Your task to perform on an android device: toggle notification dots Image 0: 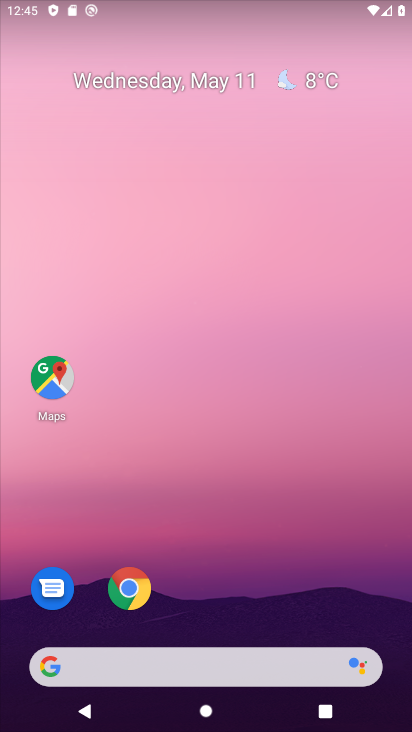
Step 0: click (287, 155)
Your task to perform on an android device: toggle notification dots Image 1: 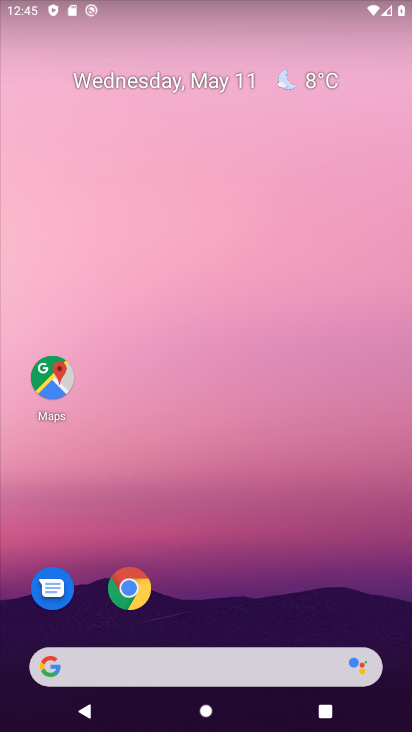
Step 1: drag from (282, 569) to (293, 226)
Your task to perform on an android device: toggle notification dots Image 2: 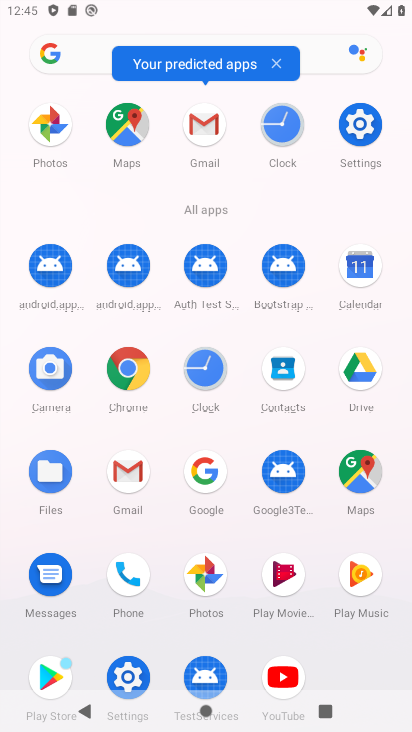
Step 2: click (379, 126)
Your task to perform on an android device: toggle notification dots Image 3: 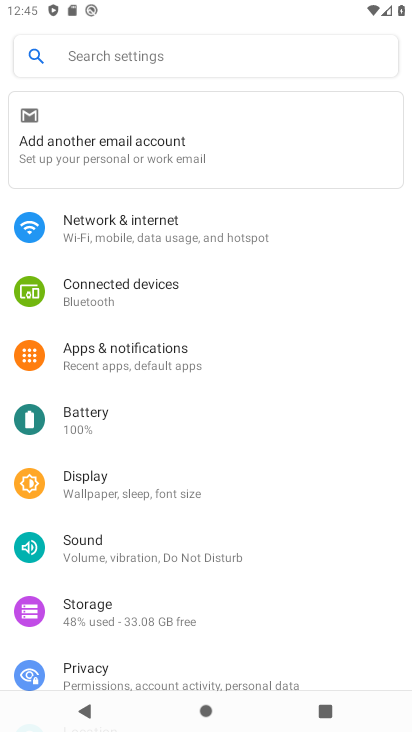
Step 3: click (235, 366)
Your task to perform on an android device: toggle notification dots Image 4: 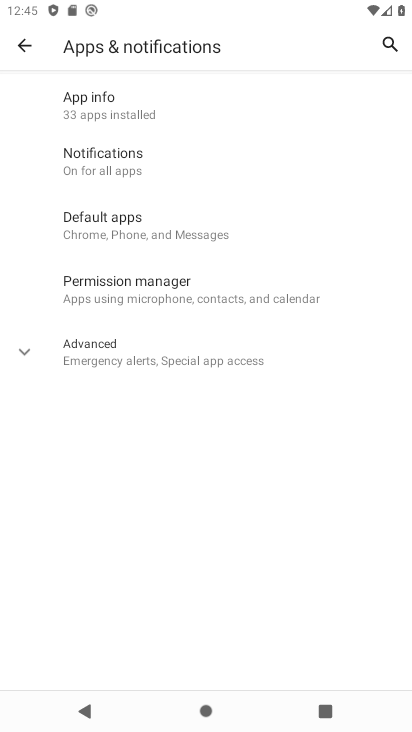
Step 4: click (147, 163)
Your task to perform on an android device: toggle notification dots Image 5: 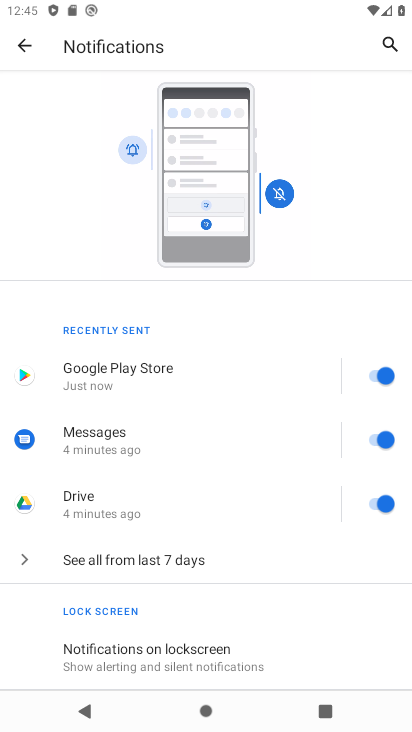
Step 5: drag from (191, 619) to (171, 294)
Your task to perform on an android device: toggle notification dots Image 6: 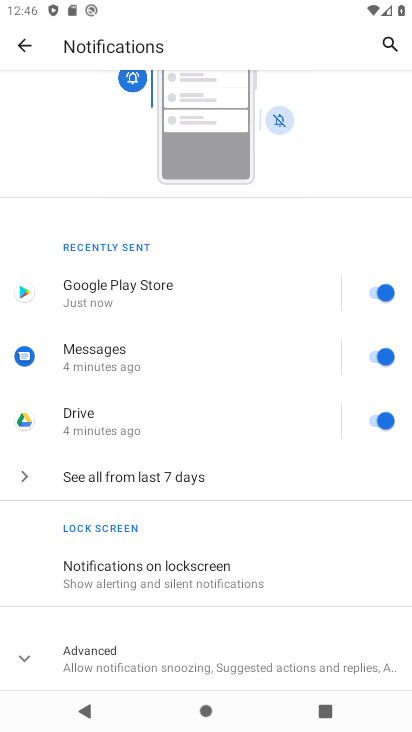
Step 6: click (30, 662)
Your task to perform on an android device: toggle notification dots Image 7: 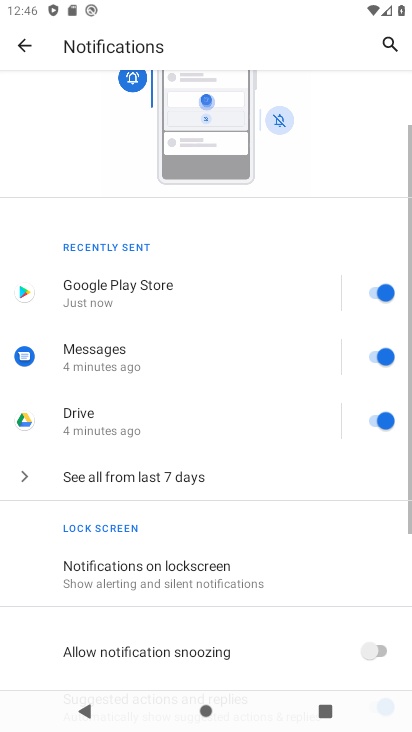
Step 7: drag from (232, 635) to (236, 240)
Your task to perform on an android device: toggle notification dots Image 8: 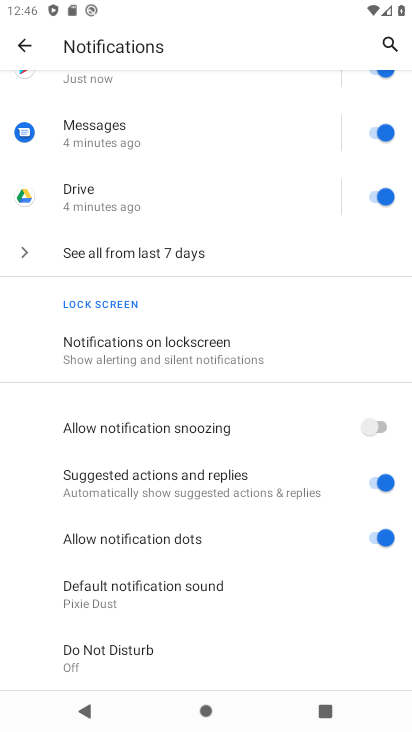
Step 8: click (388, 537)
Your task to perform on an android device: toggle notification dots Image 9: 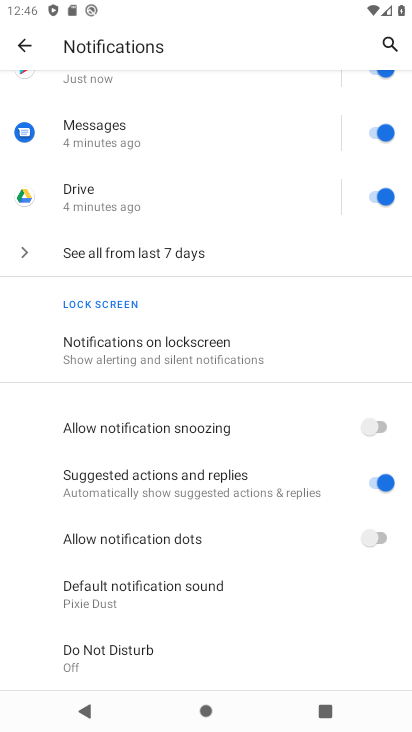
Step 9: task complete